Your task to perform on an android device: Open the calendar app, open the side menu, and click the "Day" option Image 0: 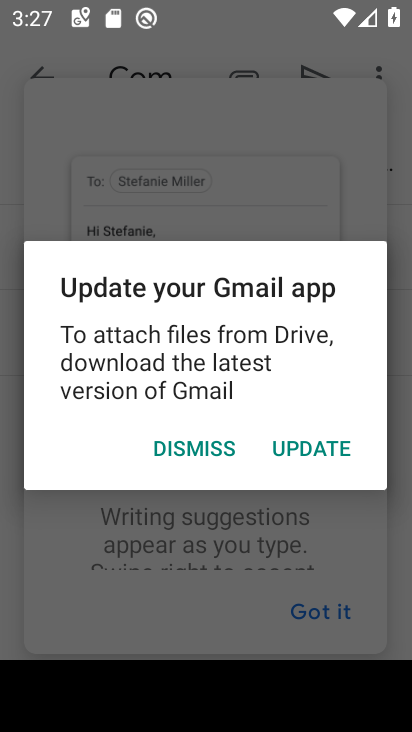
Step 0: press back button
Your task to perform on an android device: Open the calendar app, open the side menu, and click the "Day" option Image 1: 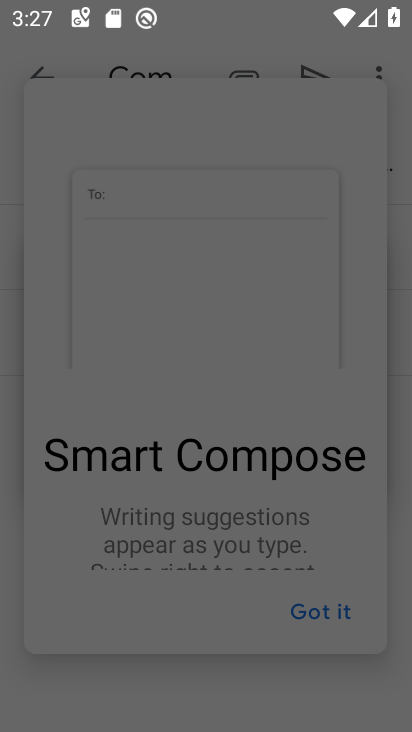
Step 1: press back button
Your task to perform on an android device: Open the calendar app, open the side menu, and click the "Day" option Image 2: 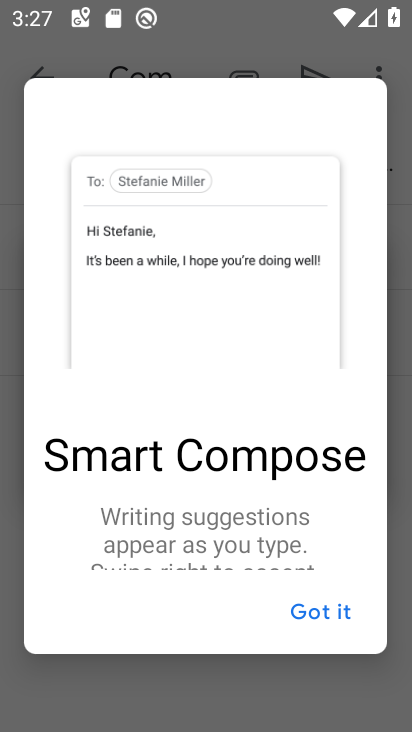
Step 2: press back button
Your task to perform on an android device: Open the calendar app, open the side menu, and click the "Day" option Image 3: 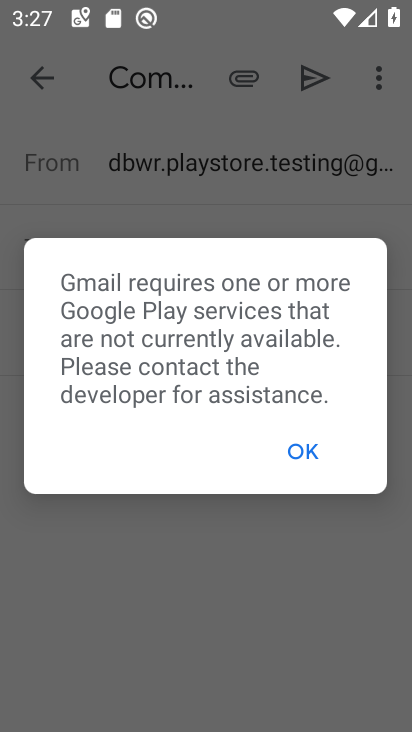
Step 3: press home button
Your task to perform on an android device: Open the calendar app, open the side menu, and click the "Day" option Image 4: 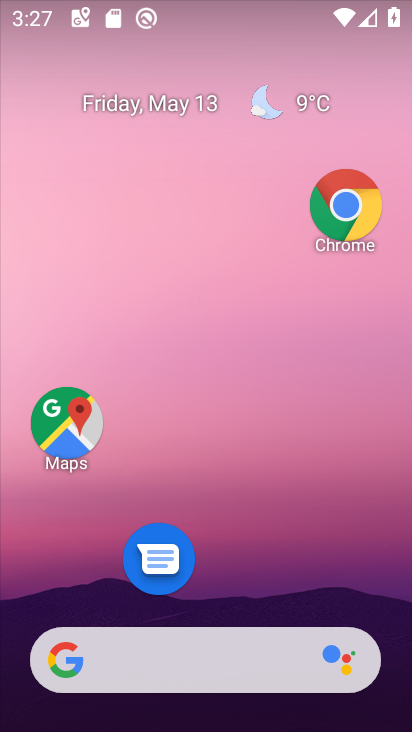
Step 4: drag from (216, 599) to (283, 85)
Your task to perform on an android device: Open the calendar app, open the side menu, and click the "Day" option Image 5: 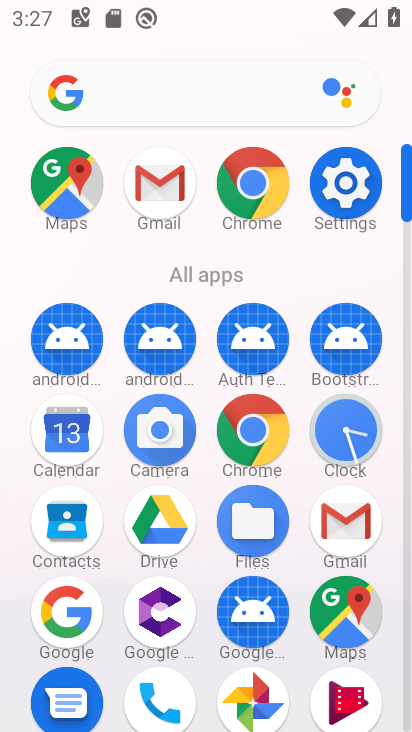
Step 5: click (79, 467)
Your task to perform on an android device: Open the calendar app, open the side menu, and click the "Day" option Image 6: 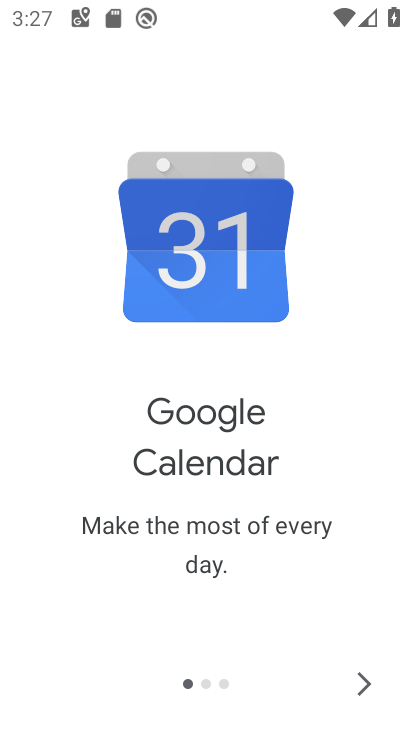
Step 6: click (345, 673)
Your task to perform on an android device: Open the calendar app, open the side menu, and click the "Day" option Image 7: 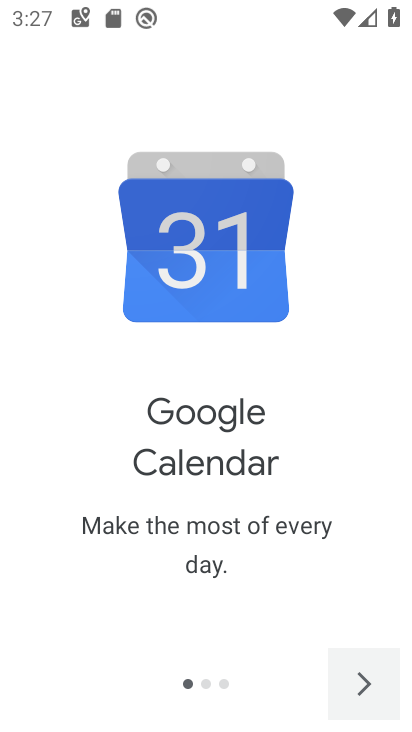
Step 7: click (345, 673)
Your task to perform on an android device: Open the calendar app, open the side menu, and click the "Day" option Image 8: 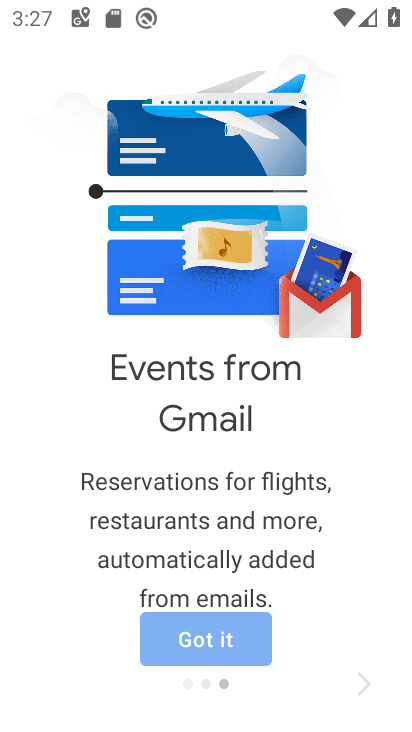
Step 8: click (345, 673)
Your task to perform on an android device: Open the calendar app, open the side menu, and click the "Day" option Image 9: 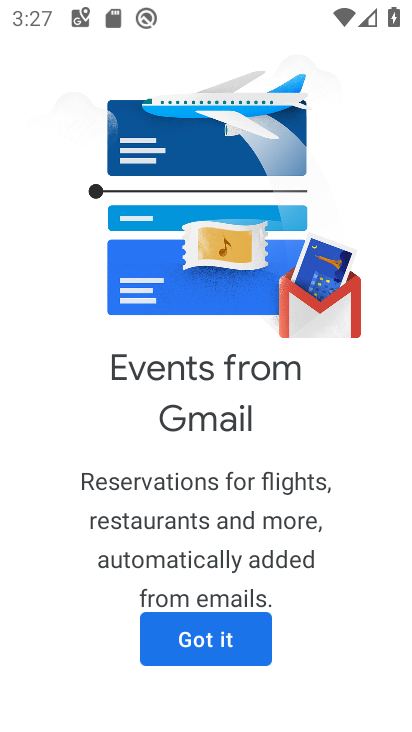
Step 9: click (211, 630)
Your task to perform on an android device: Open the calendar app, open the side menu, and click the "Day" option Image 10: 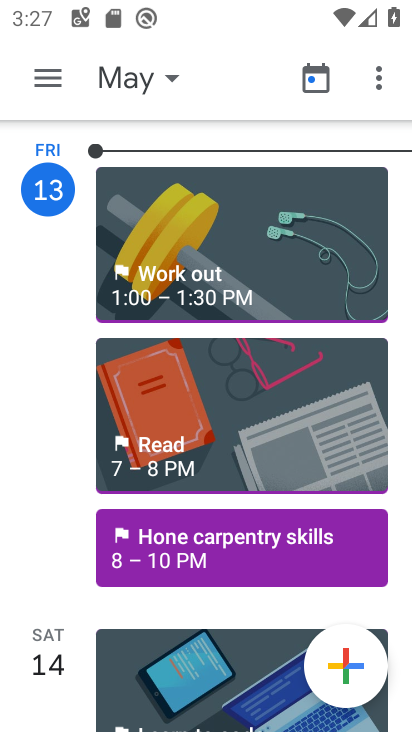
Step 10: click (52, 78)
Your task to perform on an android device: Open the calendar app, open the side menu, and click the "Day" option Image 11: 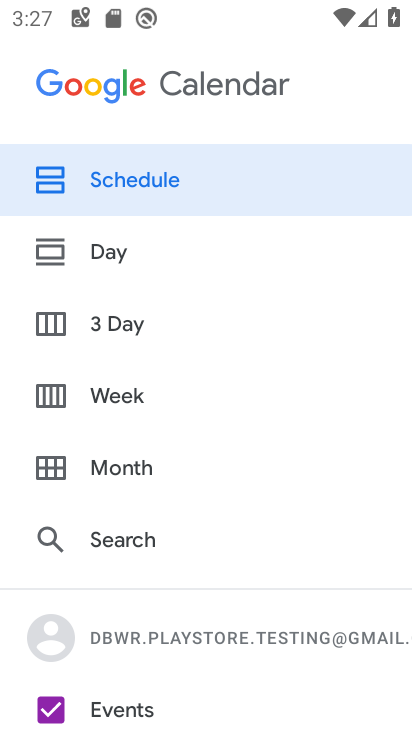
Step 11: click (98, 248)
Your task to perform on an android device: Open the calendar app, open the side menu, and click the "Day" option Image 12: 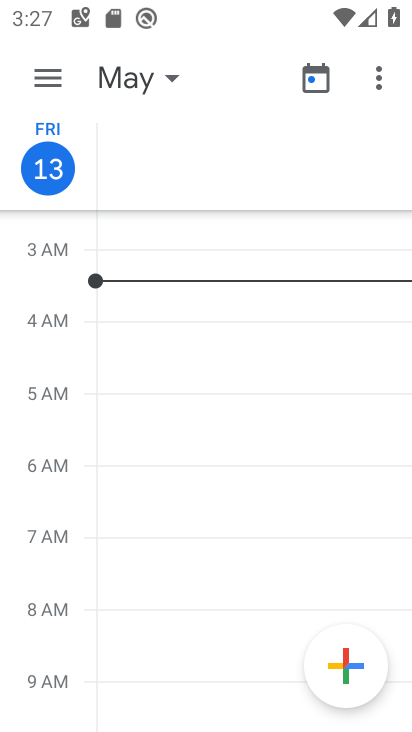
Step 12: task complete